Your task to perform on an android device: change notifications settings Image 0: 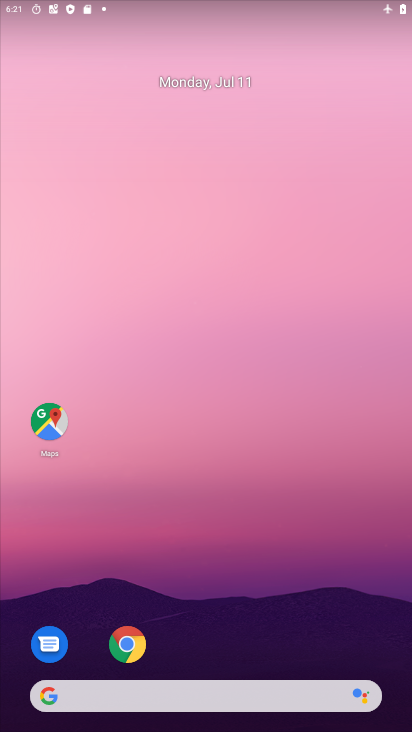
Step 0: drag from (206, 569) to (177, 12)
Your task to perform on an android device: change notifications settings Image 1: 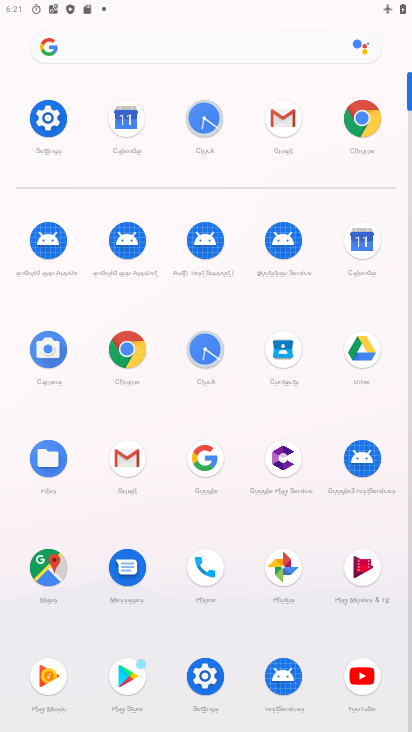
Step 1: click (33, 116)
Your task to perform on an android device: change notifications settings Image 2: 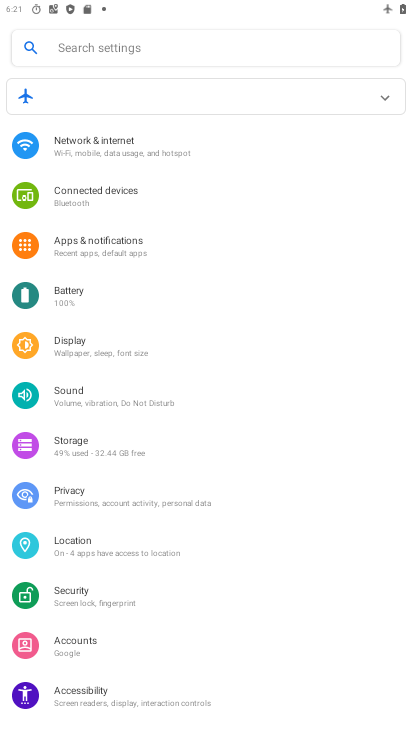
Step 2: click (127, 244)
Your task to perform on an android device: change notifications settings Image 3: 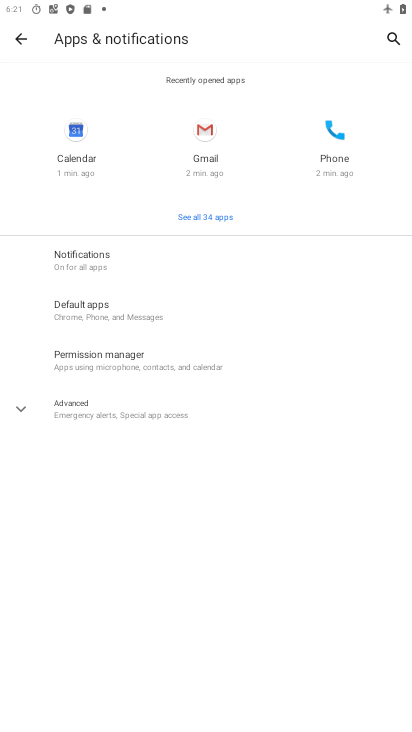
Step 3: click (123, 256)
Your task to perform on an android device: change notifications settings Image 4: 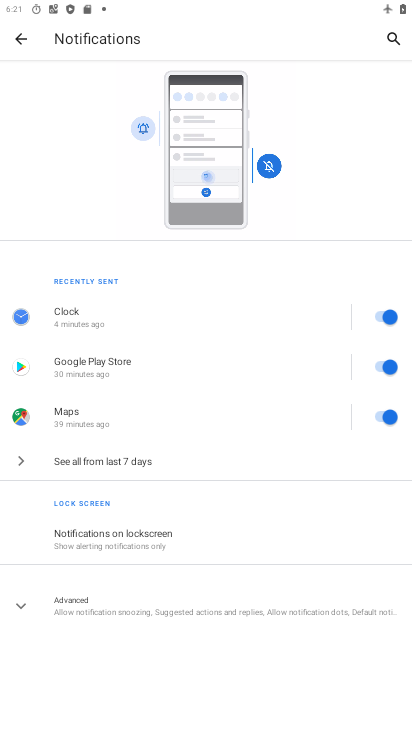
Step 4: click (382, 311)
Your task to perform on an android device: change notifications settings Image 5: 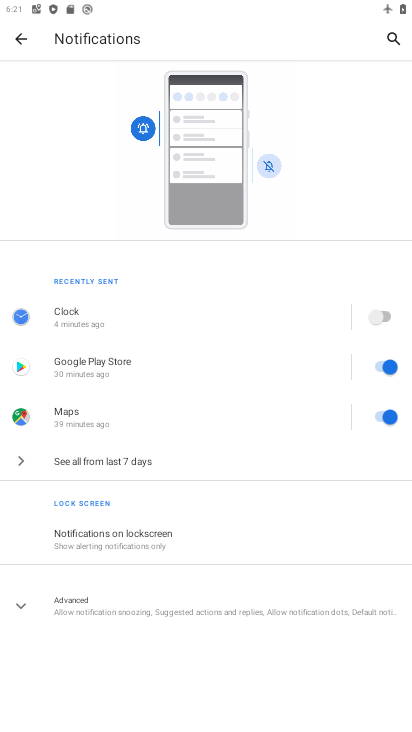
Step 5: task complete